Your task to perform on an android device: Look up the best rated Nike shoes on Nike.com Image 0: 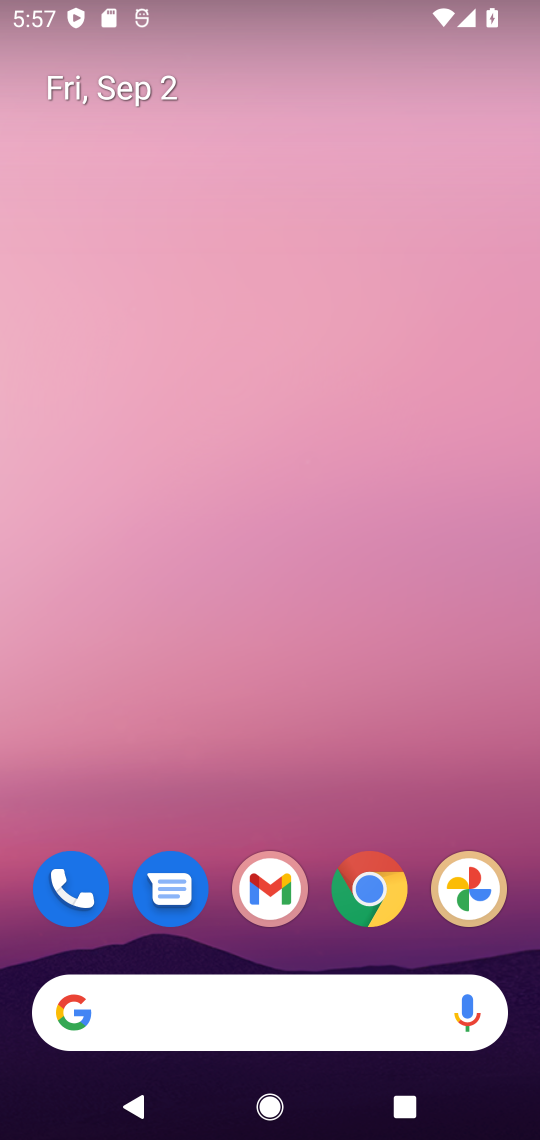
Step 0: click (342, 983)
Your task to perform on an android device: Look up the best rated Nike shoes on Nike.com Image 1: 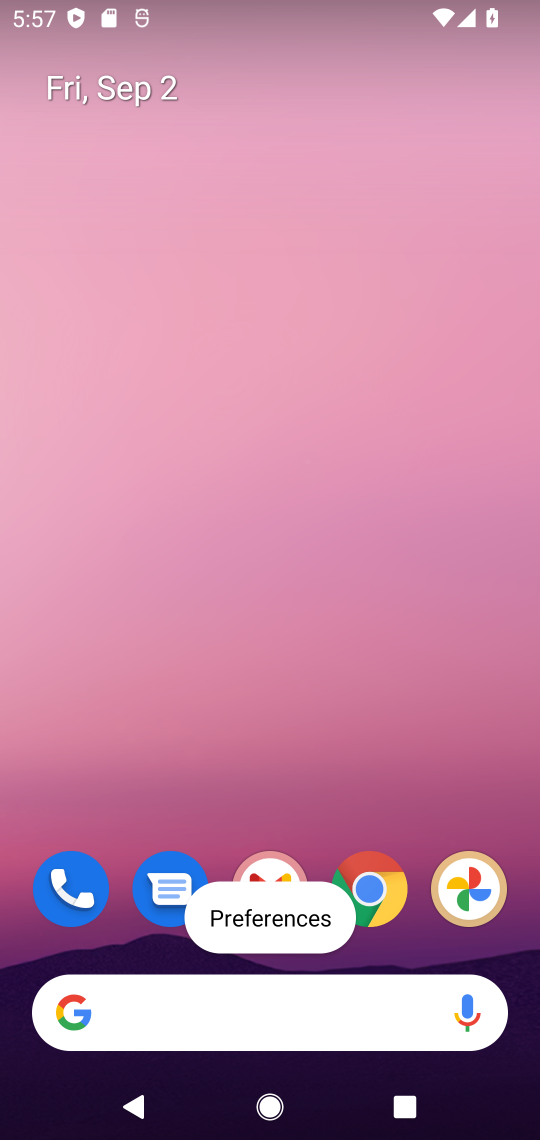
Step 1: click (329, 997)
Your task to perform on an android device: Look up the best rated Nike shoes on Nike.com Image 2: 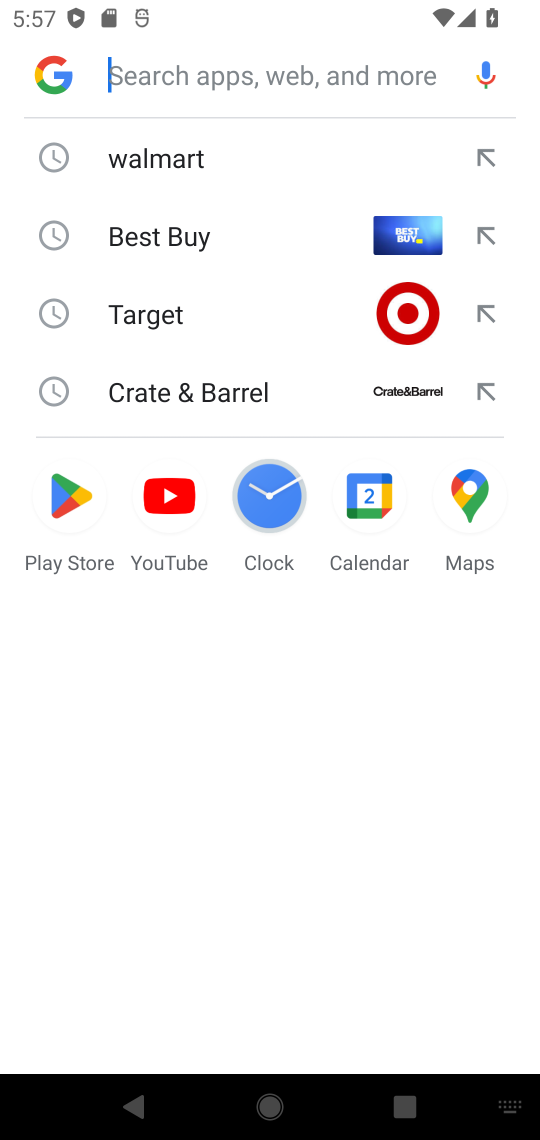
Step 2: type "Nike.com"
Your task to perform on an android device: Look up the best rated Nike shoes on Nike.com Image 3: 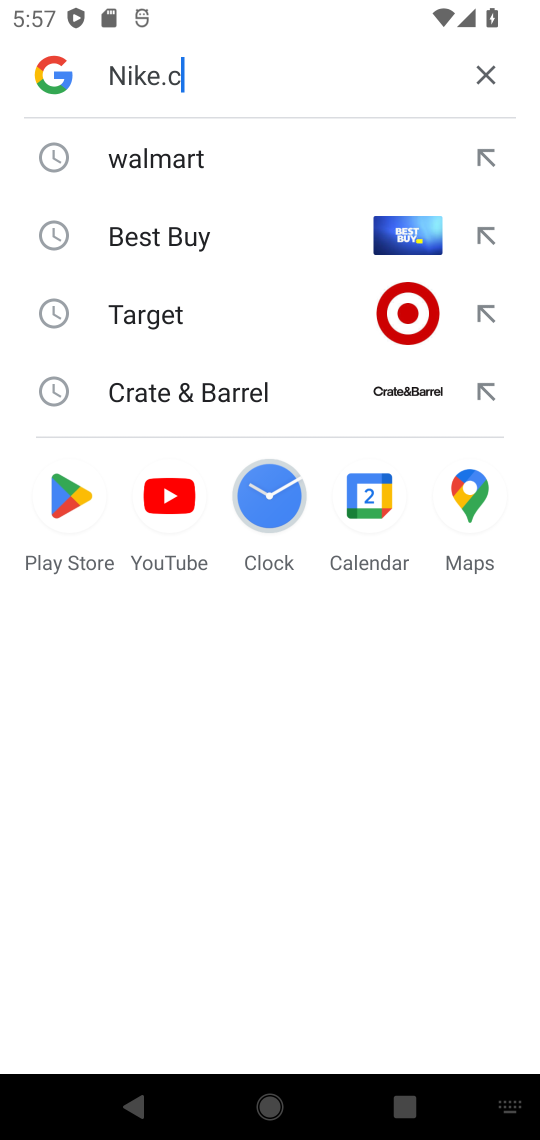
Step 3: type ""
Your task to perform on an android device: Look up the best rated Nike shoes on Nike.com Image 4: 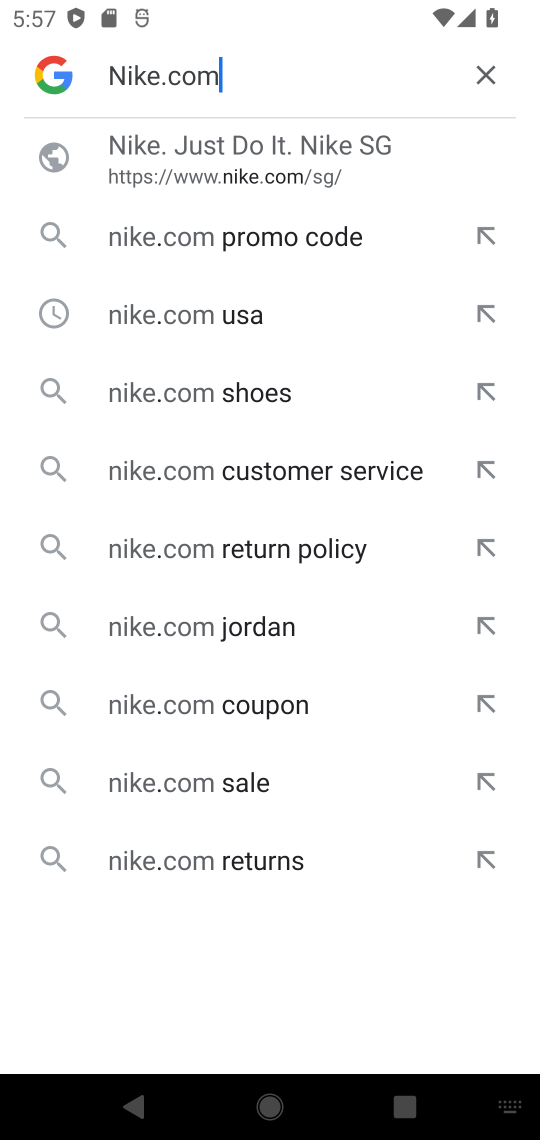
Step 4: click (217, 323)
Your task to perform on an android device: Look up the best rated Nike shoes on Nike.com Image 5: 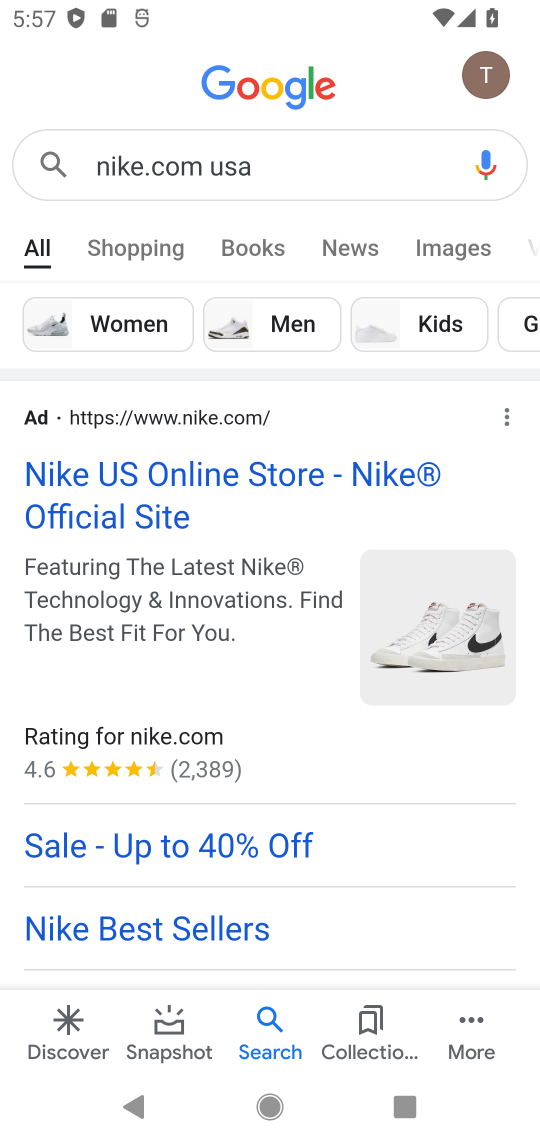
Step 5: drag from (229, 886) to (320, 427)
Your task to perform on an android device: Look up the best rated Nike shoes on Nike.com Image 6: 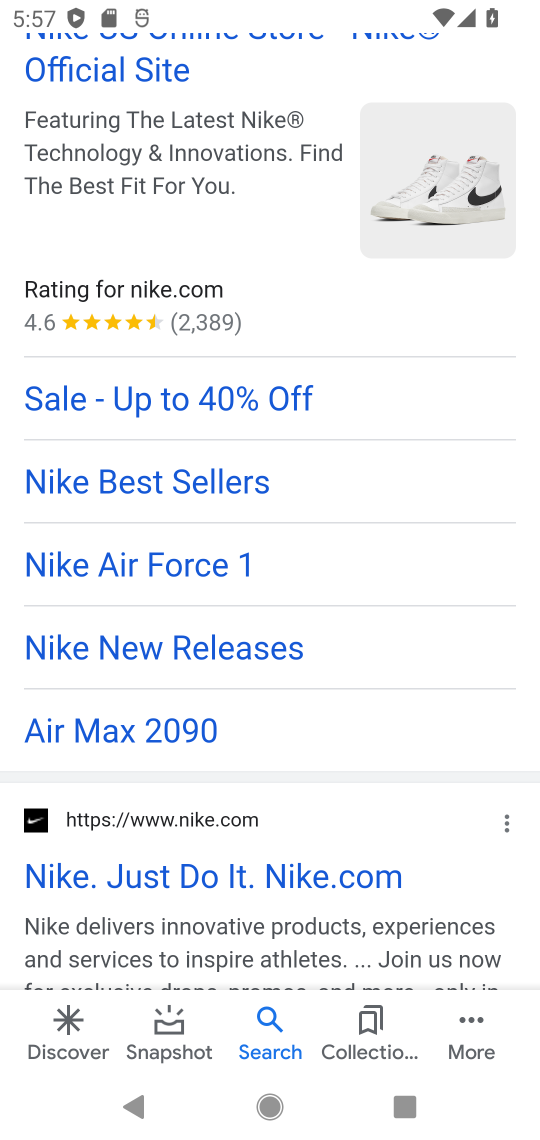
Step 6: drag from (286, 482) to (334, 406)
Your task to perform on an android device: Look up the best rated Nike shoes on Nike.com Image 7: 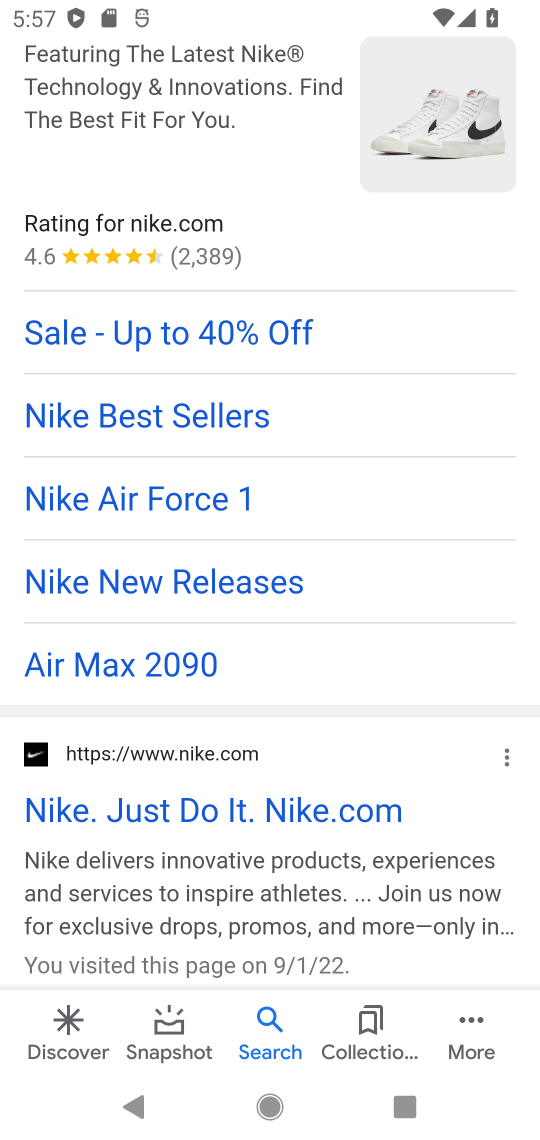
Step 7: click (235, 865)
Your task to perform on an android device: Look up the best rated Nike shoes on Nike.com Image 8: 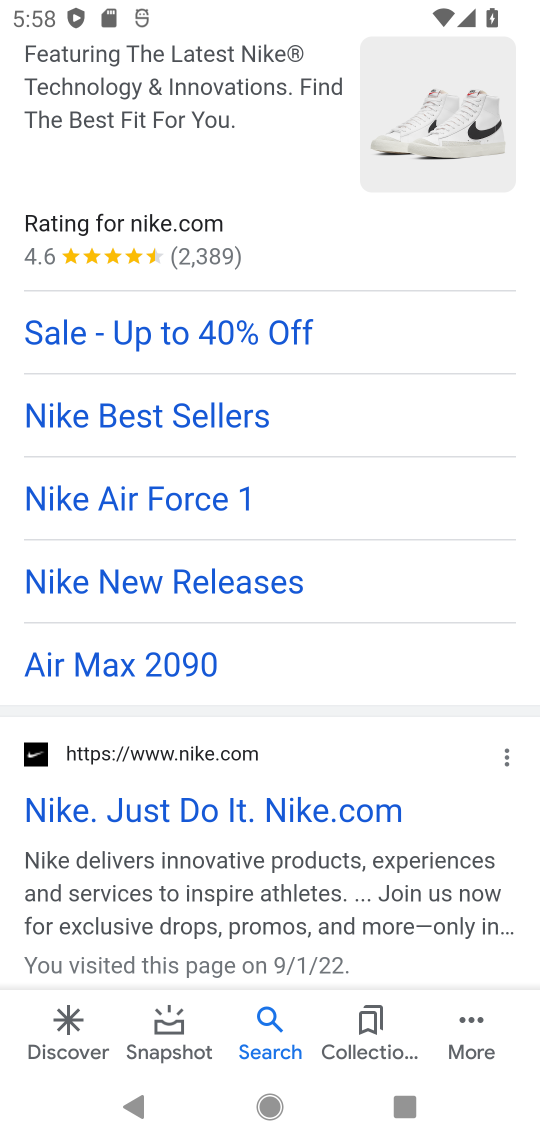
Step 8: click (336, 822)
Your task to perform on an android device: Look up the best rated Nike shoes on Nike.com Image 9: 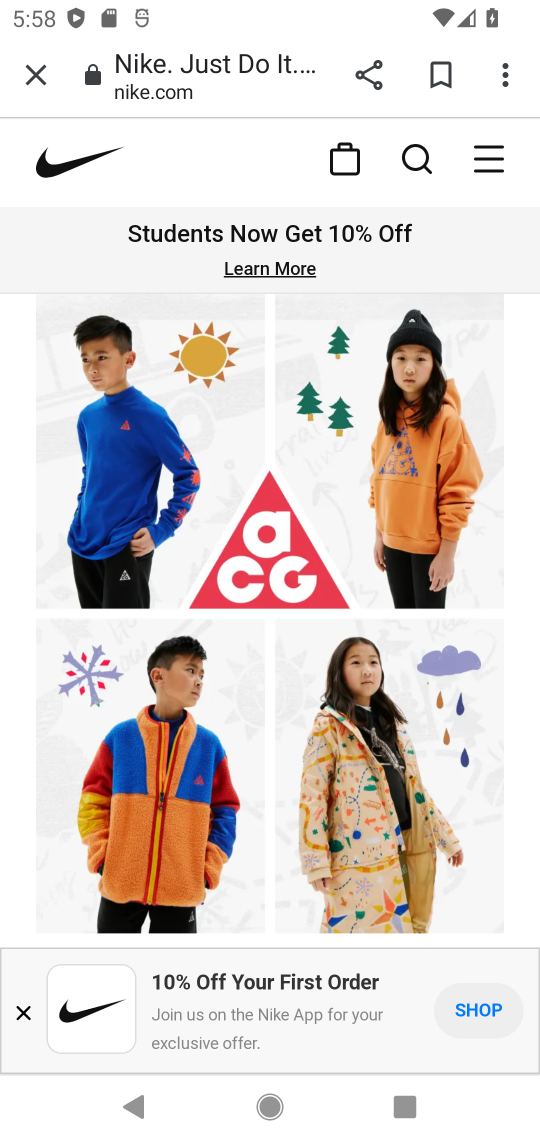
Step 9: click (417, 159)
Your task to perform on an android device: Look up the best rated Nike shoes on Nike.com Image 10: 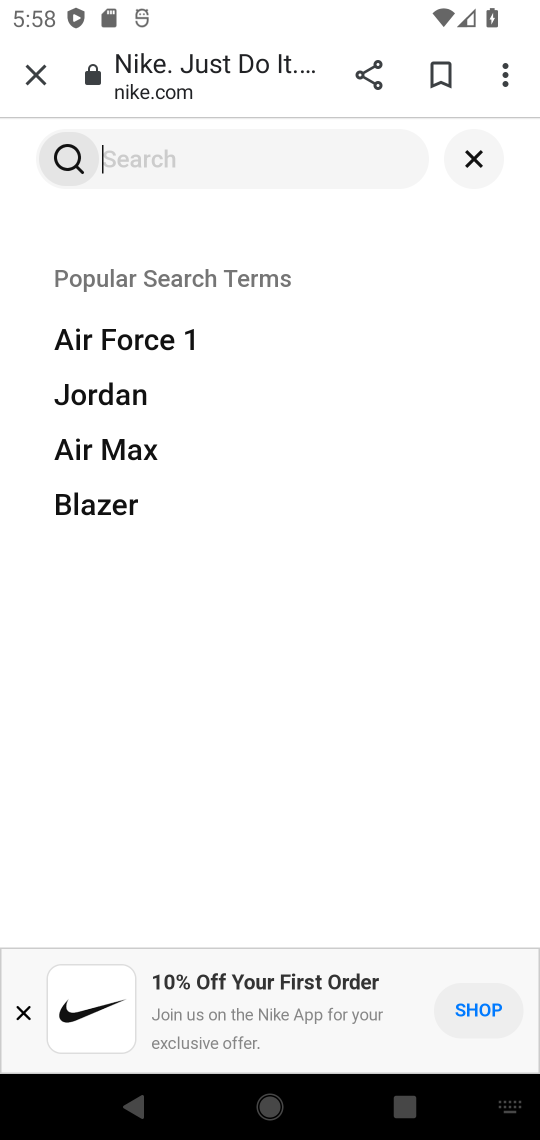
Step 10: type "shoes"
Your task to perform on an android device: Look up the best rated Nike shoes on Nike.com Image 11: 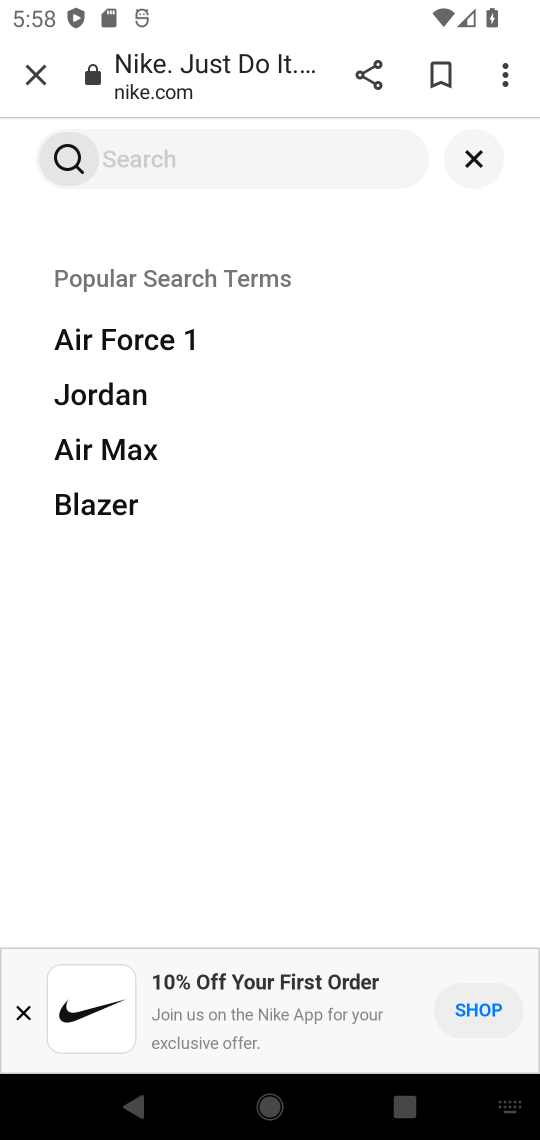
Step 11: type ""
Your task to perform on an android device: Look up the best rated Nike shoes on Nike.com Image 12: 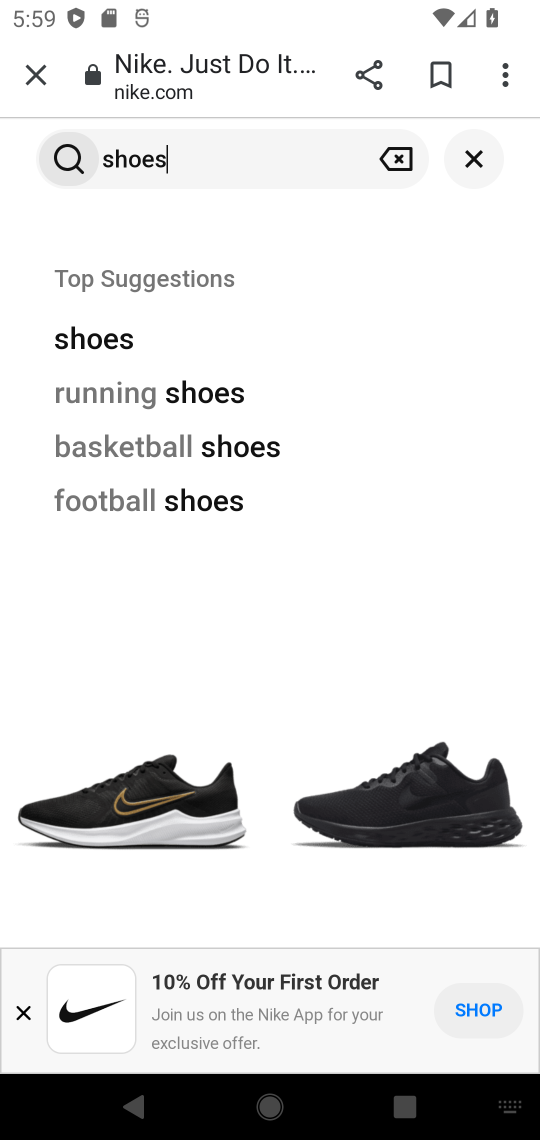
Step 12: click (138, 341)
Your task to perform on an android device: Look up the best rated Nike shoes on Nike.com Image 13: 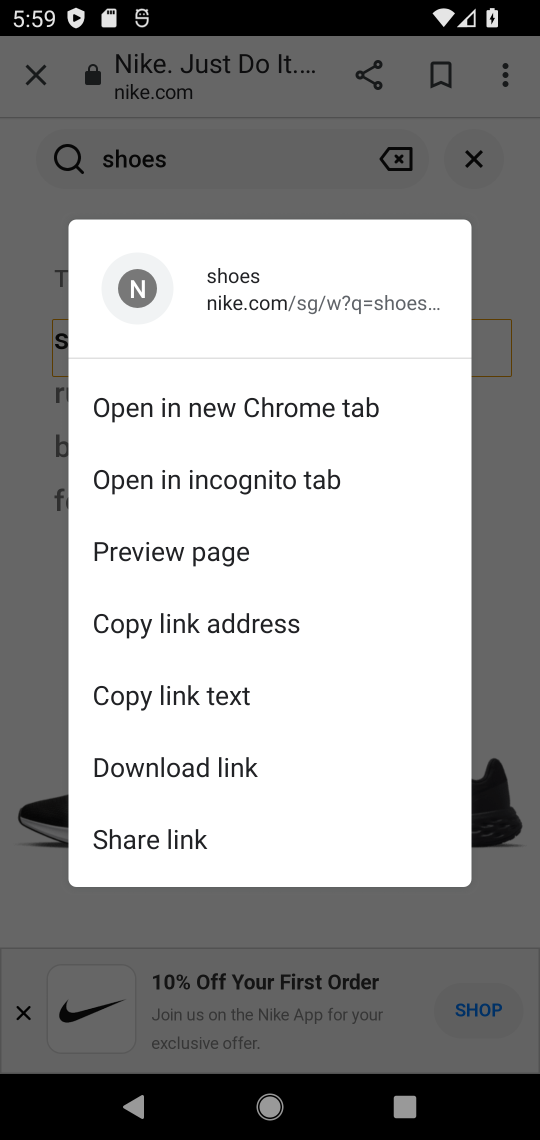
Step 13: click (488, 547)
Your task to perform on an android device: Look up the best rated Nike shoes on Nike.com Image 14: 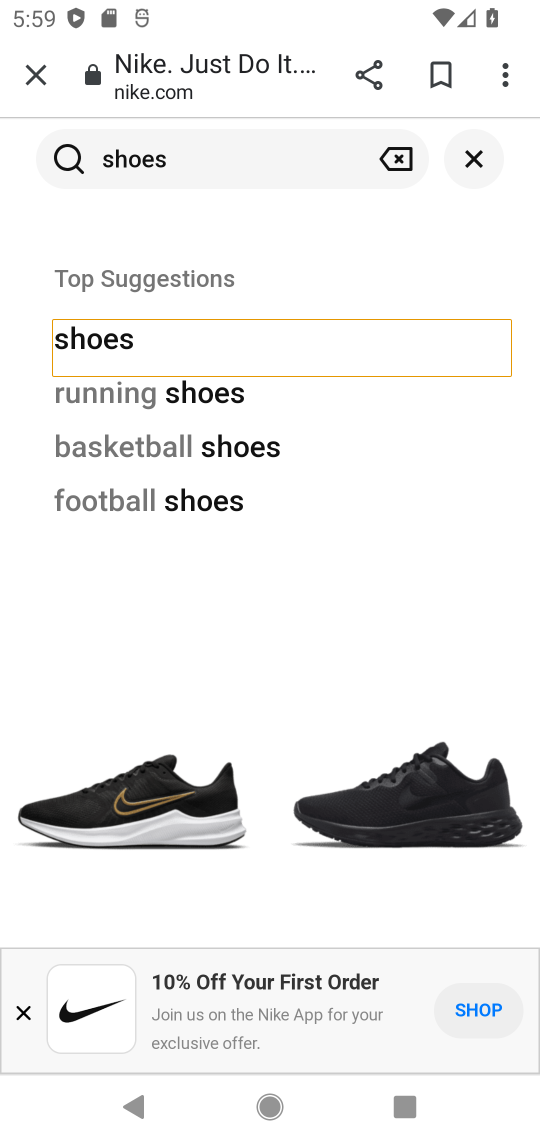
Step 14: click (214, 351)
Your task to perform on an android device: Look up the best rated Nike shoes on Nike.com Image 15: 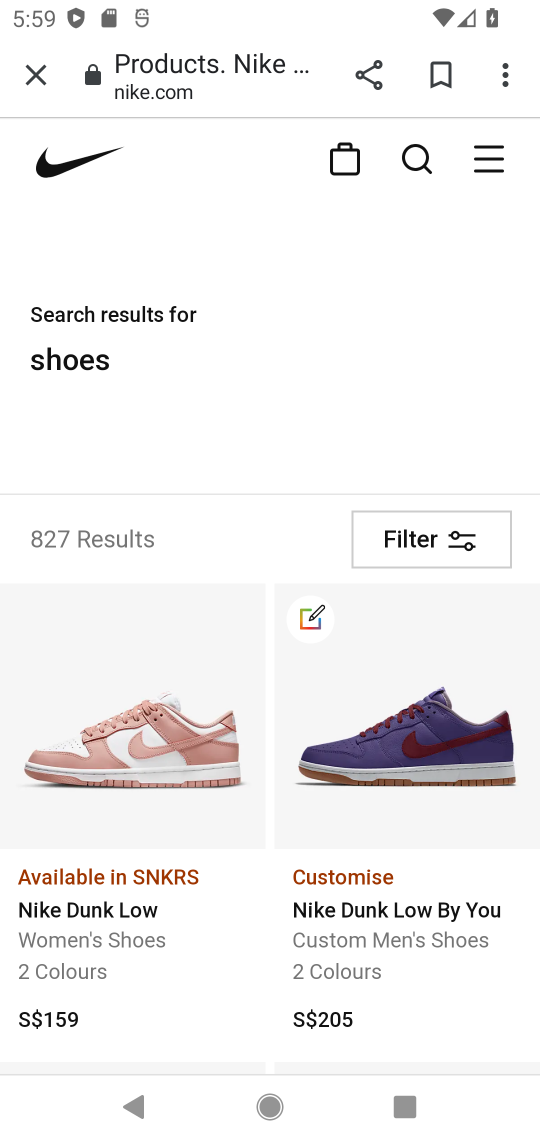
Step 15: drag from (252, 924) to (213, 382)
Your task to perform on an android device: Look up the best rated Nike shoes on Nike.com Image 16: 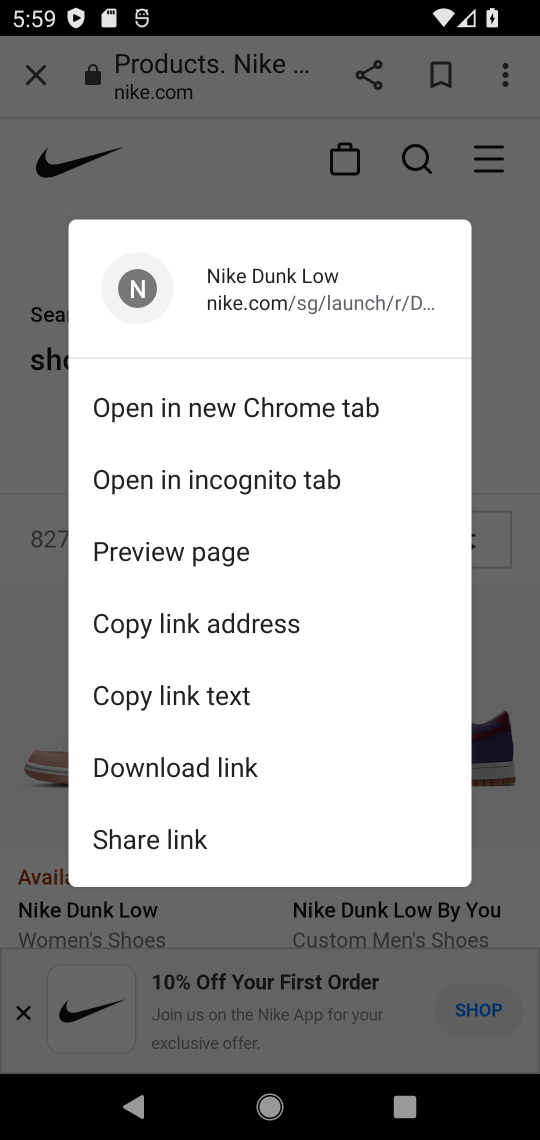
Step 16: click (494, 302)
Your task to perform on an android device: Look up the best rated Nike shoes on Nike.com Image 17: 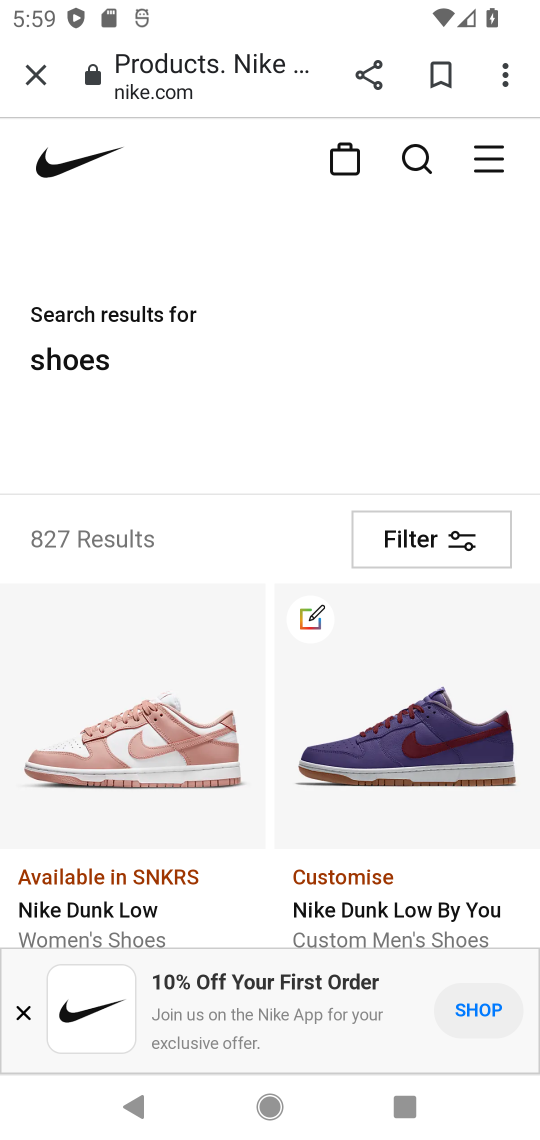
Step 17: task complete